Your task to perform on an android device: Open CNN.com Image 0: 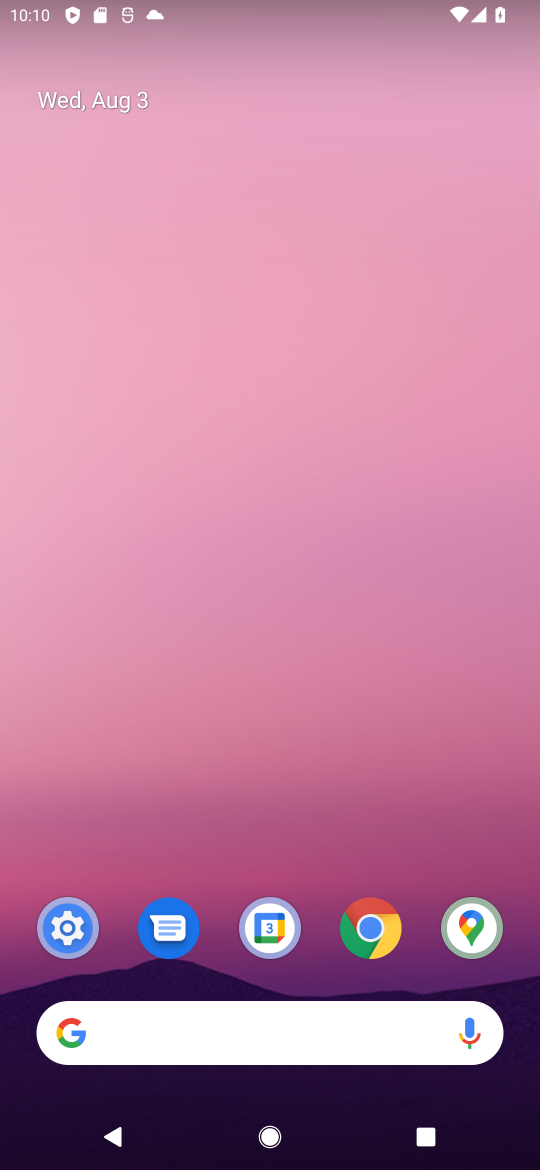
Step 0: click (369, 930)
Your task to perform on an android device: Open CNN.com Image 1: 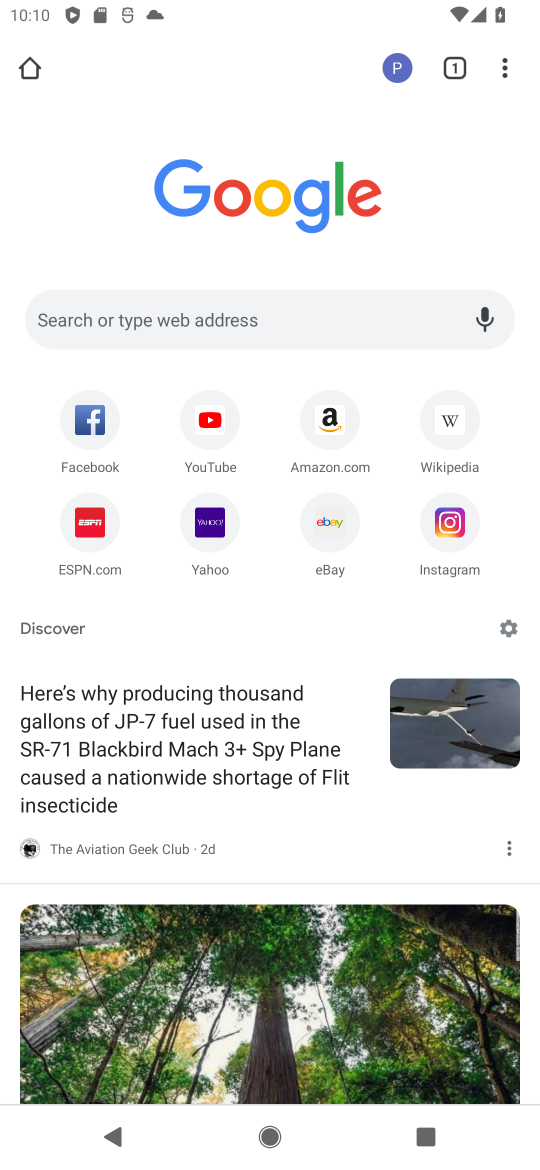
Step 1: click (104, 310)
Your task to perform on an android device: Open CNN.com Image 2: 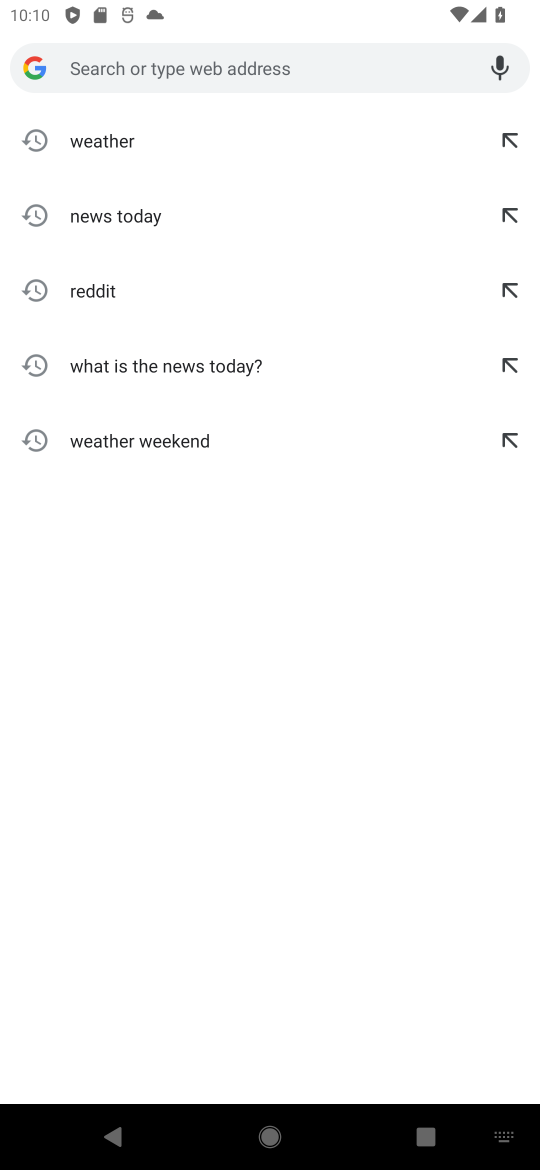
Step 2: type "cnn.com"
Your task to perform on an android device: Open CNN.com Image 3: 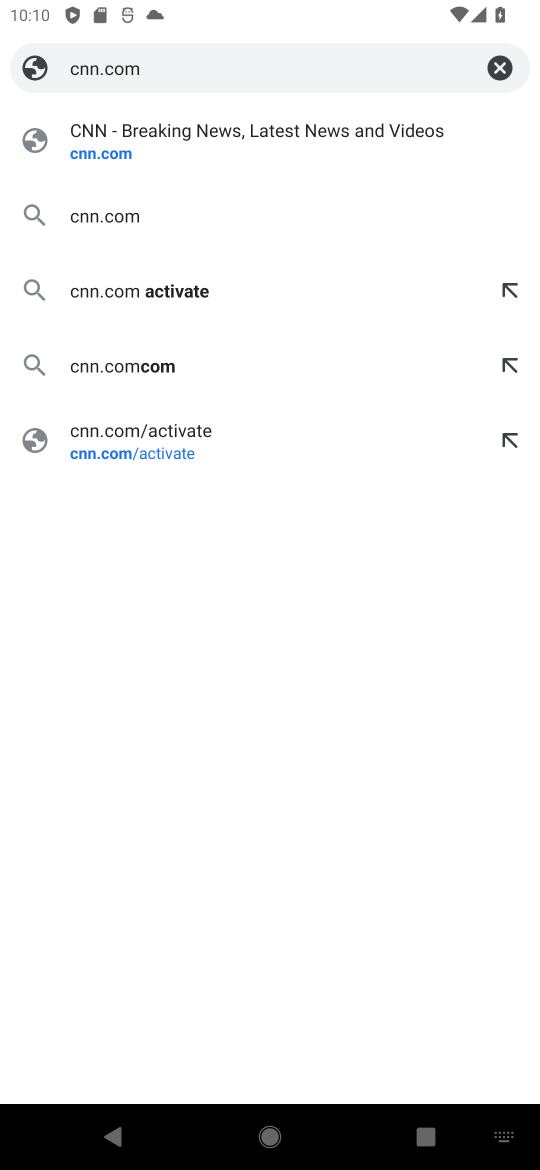
Step 3: click (284, 136)
Your task to perform on an android device: Open CNN.com Image 4: 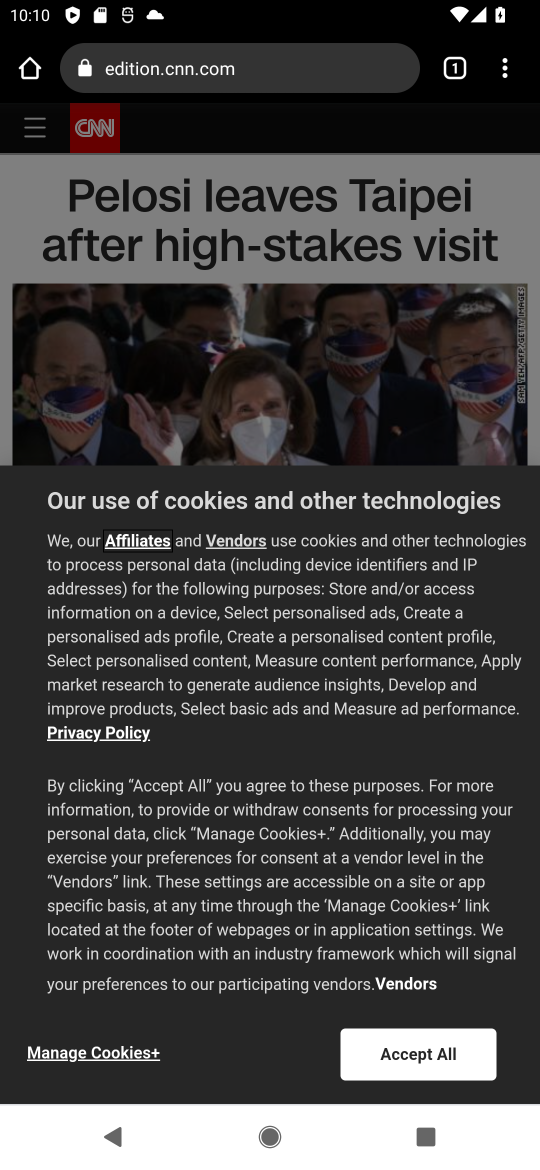
Step 4: task complete